Your task to perform on an android device: make emails show in primary in the gmail app Image 0: 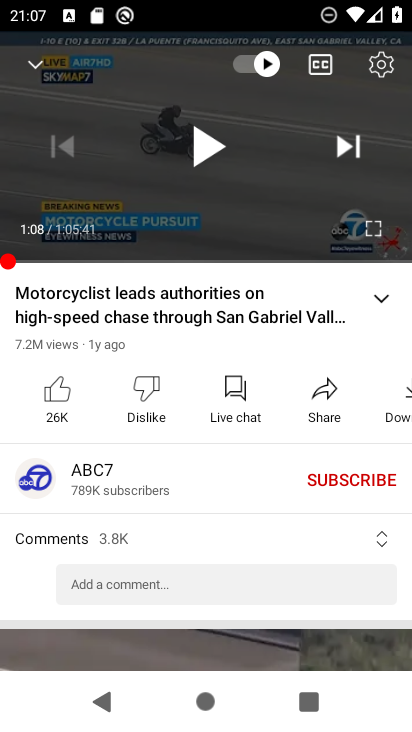
Step 0: press home button
Your task to perform on an android device: make emails show in primary in the gmail app Image 1: 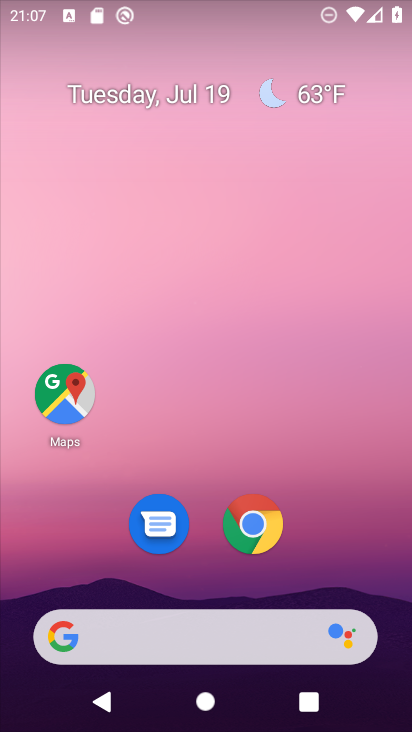
Step 1: drag from (273, 424) to (340, 67)
Your task to perform on an android device: make emails show in primary in the gmail app Image 2: 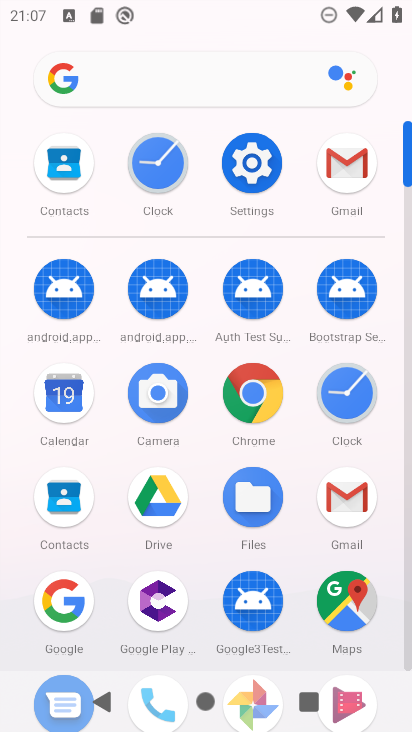
Step 2: click (341, 175)
Your task to perform on an android device: make emails show in primary in the gmail app Image 3: 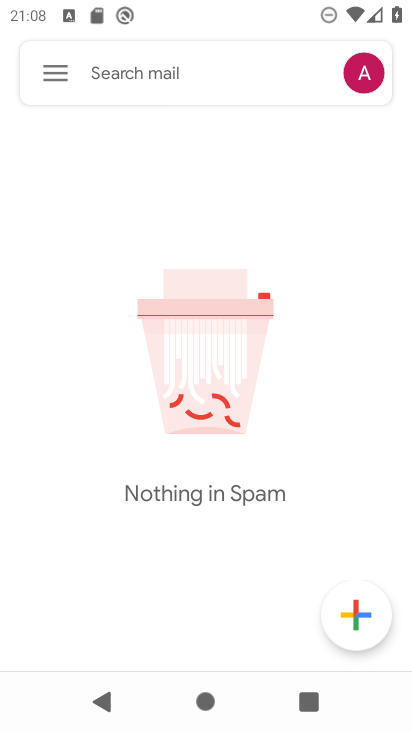
Step 3: click (62, 74)
Your task to perform on an android device: make emails show in primary in the gmail app Image 4: 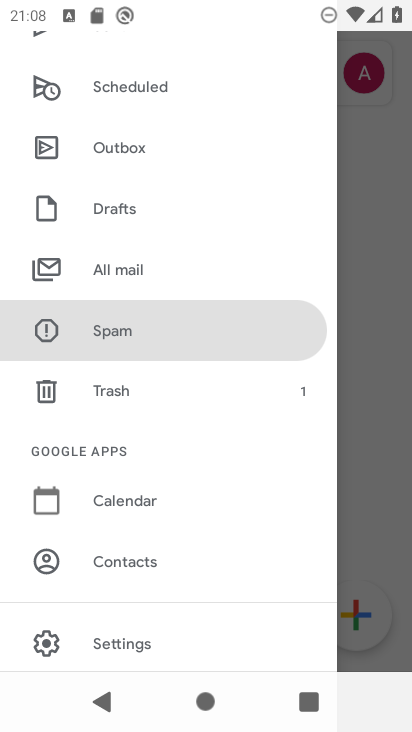
Step 4: click (158, 637)
Your task to perform on an android device: make emails show in primary in the gmail app Image 5: 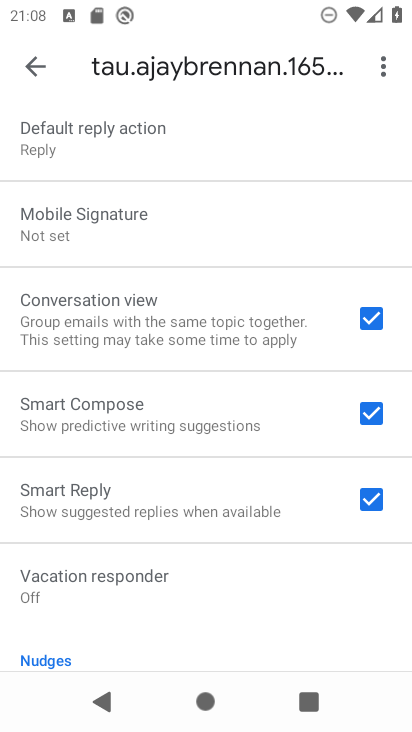
Step 5: drag from (191, 210) to (202, 668)
Your task to perform on an android device: make emails show in primary in the gmail app Image 6: 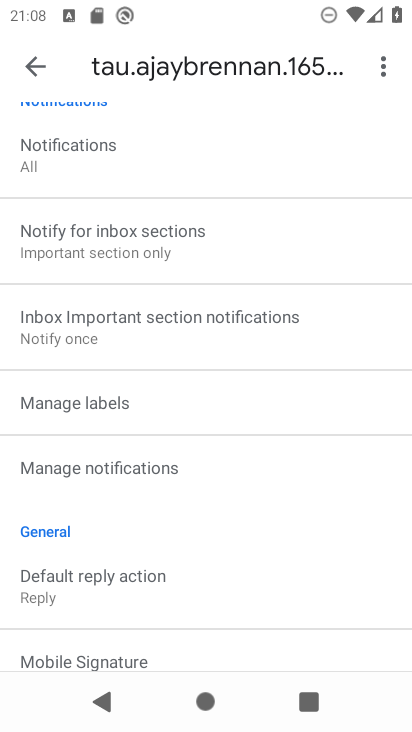
Step 6: drag from (254, 169) to (234, 599)
Your task to perform on an android device: make emails show in primary in the gmail app Image 7: 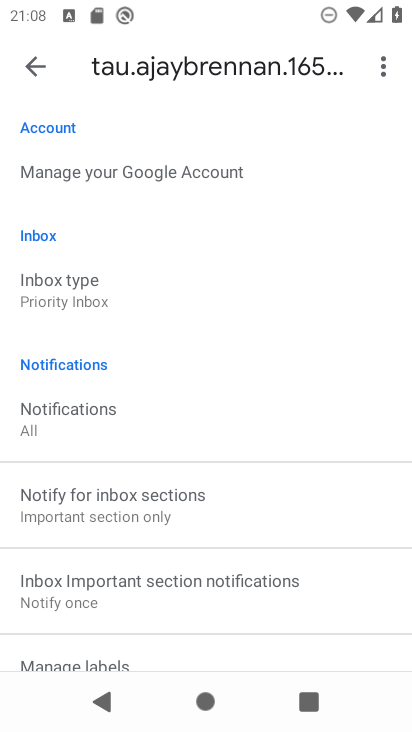
Step 7: click (69, 276)
Your task to perform on an android device: make emails show in primary in the gmail app Image 8: 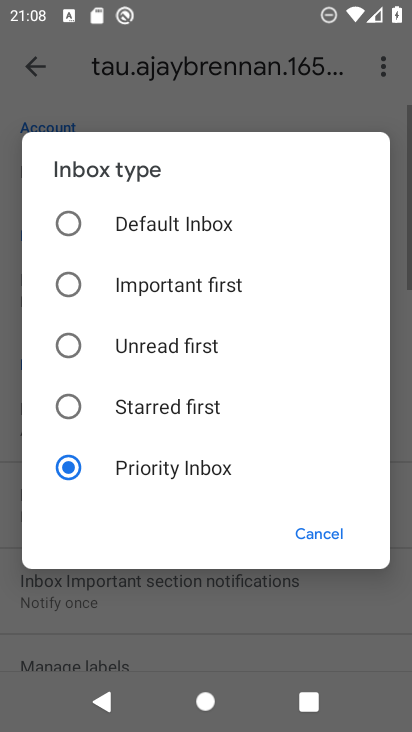
Step 8: click (72, 221)
Your task to perform on an android device: make emails show in primary in the gmail app Image 9: 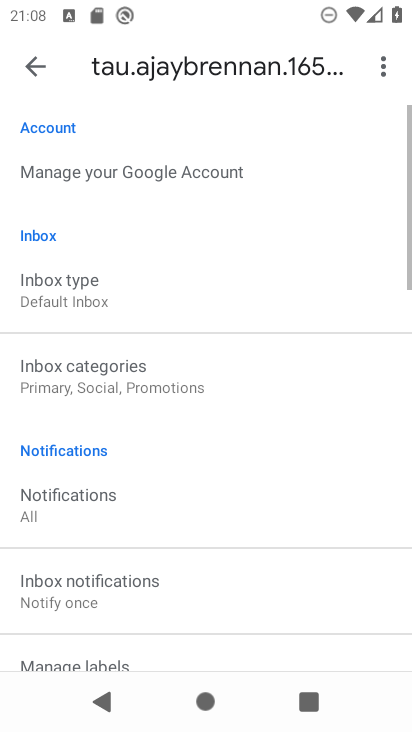
Step 9: click (83, 375)
Your task to perform on an android device: make emails show in primary in the gmail app Image 10: 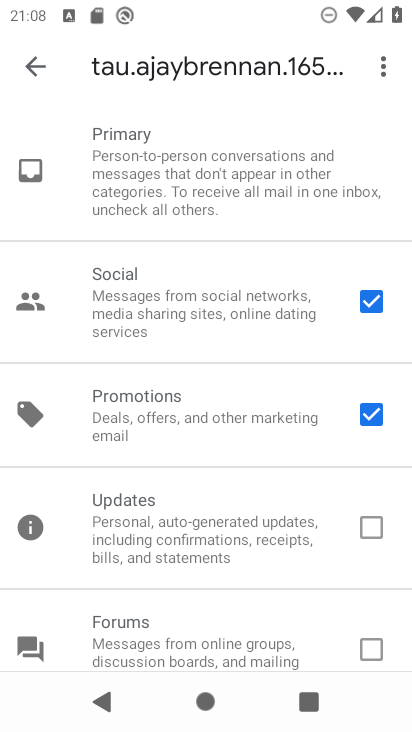
Step 10: click (369, 305)
Your task to perform on an android device: make emails show in primary in the gmail app Image 11: 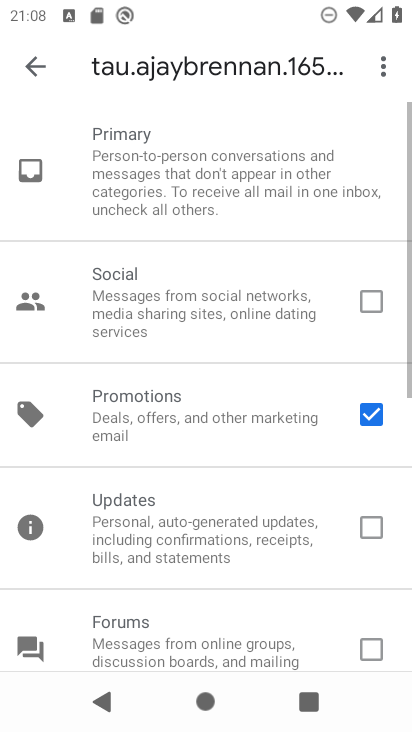
Step 11: click (381, 424)
Your task to perform on an android device: make emails show in primary in the gmail app Image 12: 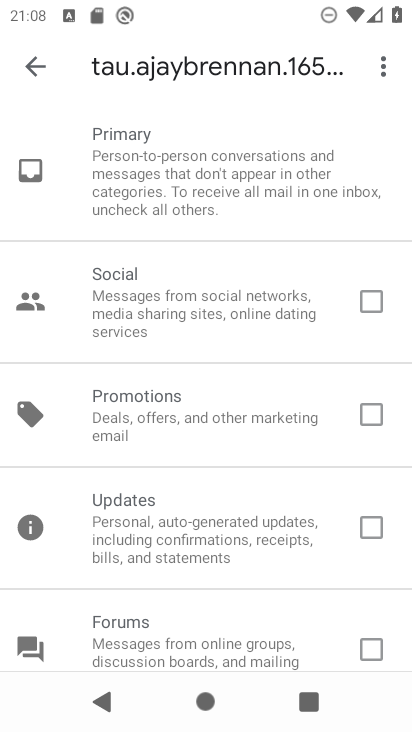
Step 12: task complete